Your task to perform on an android device: Go to Amazon Image 0: 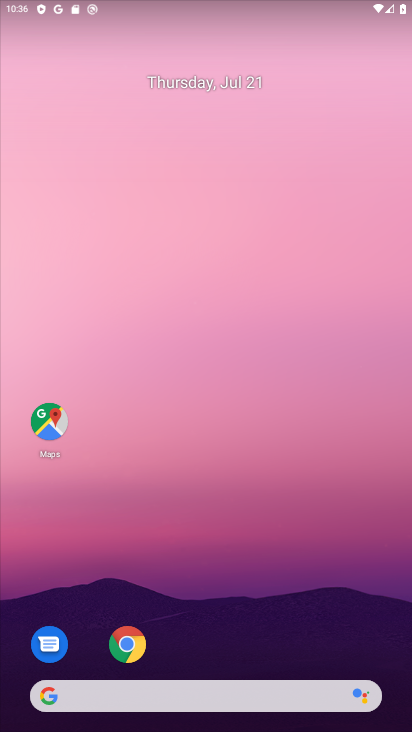
Step 0: drag from (239, 661) to (210, 75)
Your task to perform on an android device: Go to Amazon Image 1: 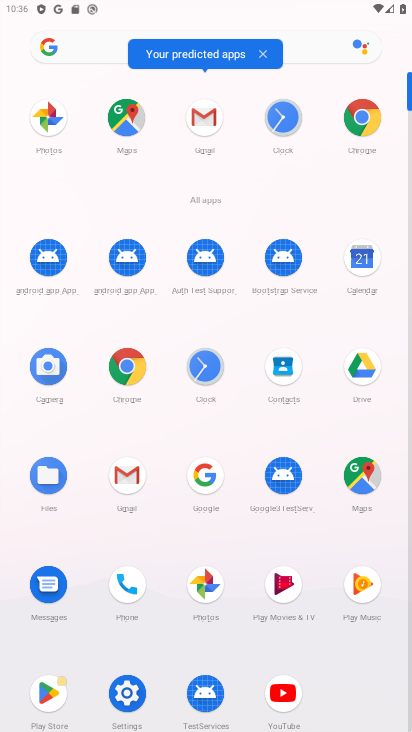
Step 1: click (368, 123)
Your task to perform on an android device: Go to Amazon Image 2: 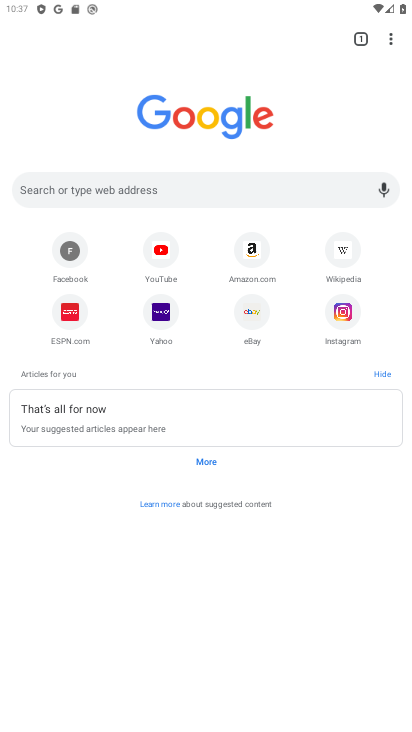
Step 2: click (251, 245)
Your task to perform on an android device: Go to Amazon Image 3: 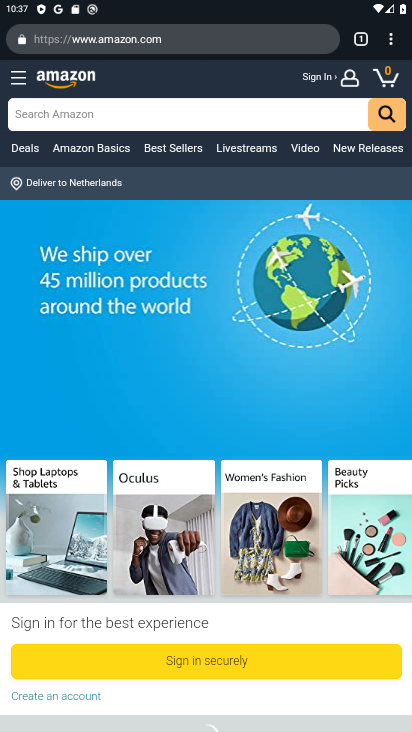
Step 3: task complete